Your task to perform on an android device: Open CNN.com Image 0: 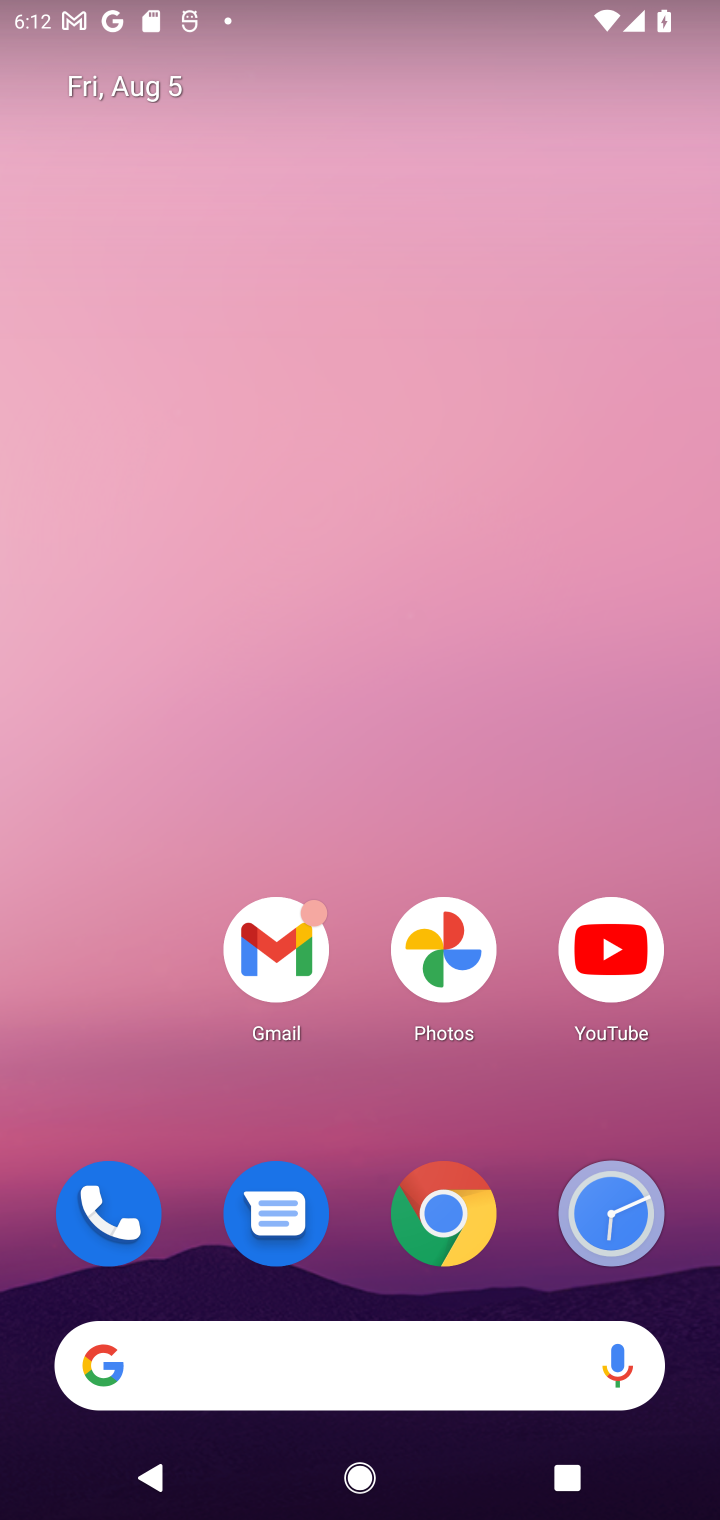
Step 0: click (420, 1228)
Your task to perform on an android device: Open CNN.com Image 1: 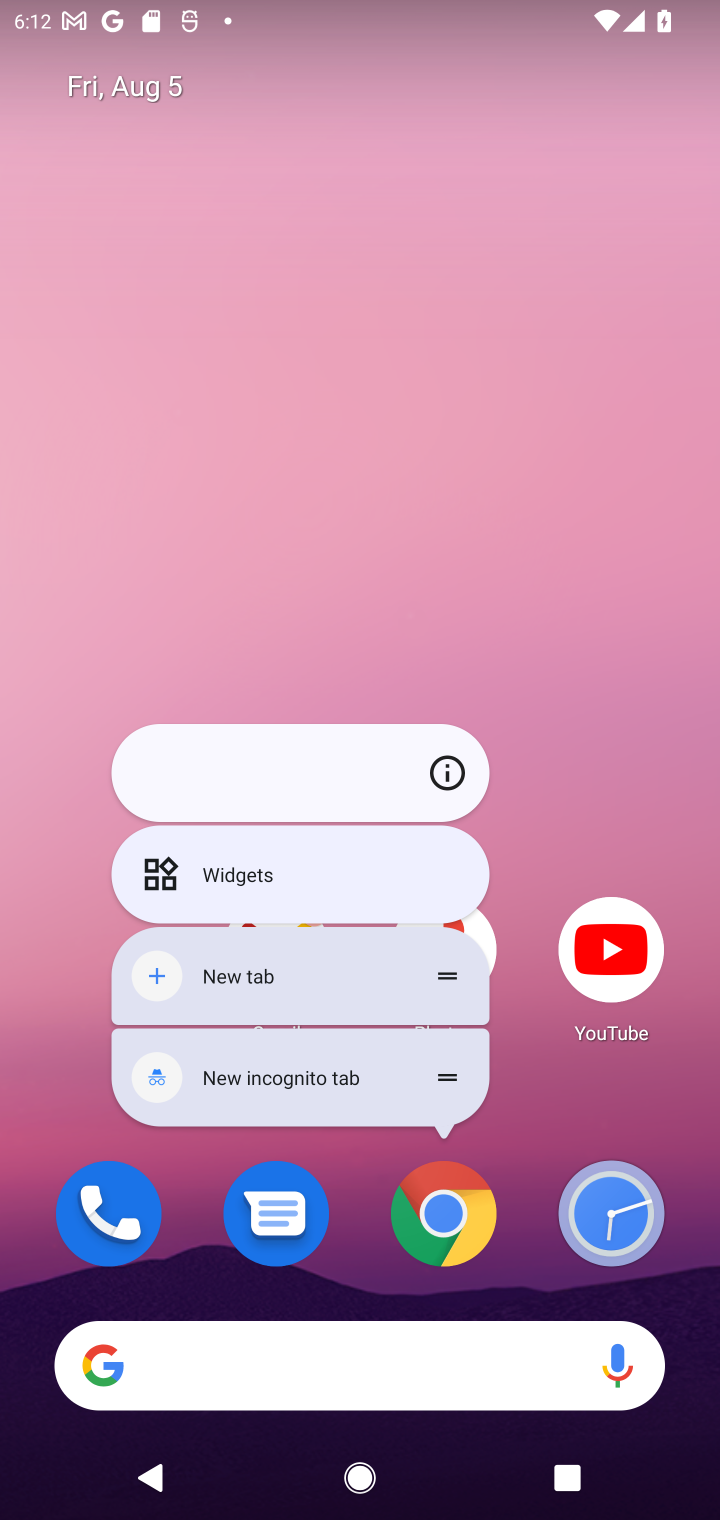
Step 1: click (457, 1265)
Your task to perform on an android device: Open CNN.com Image 2: 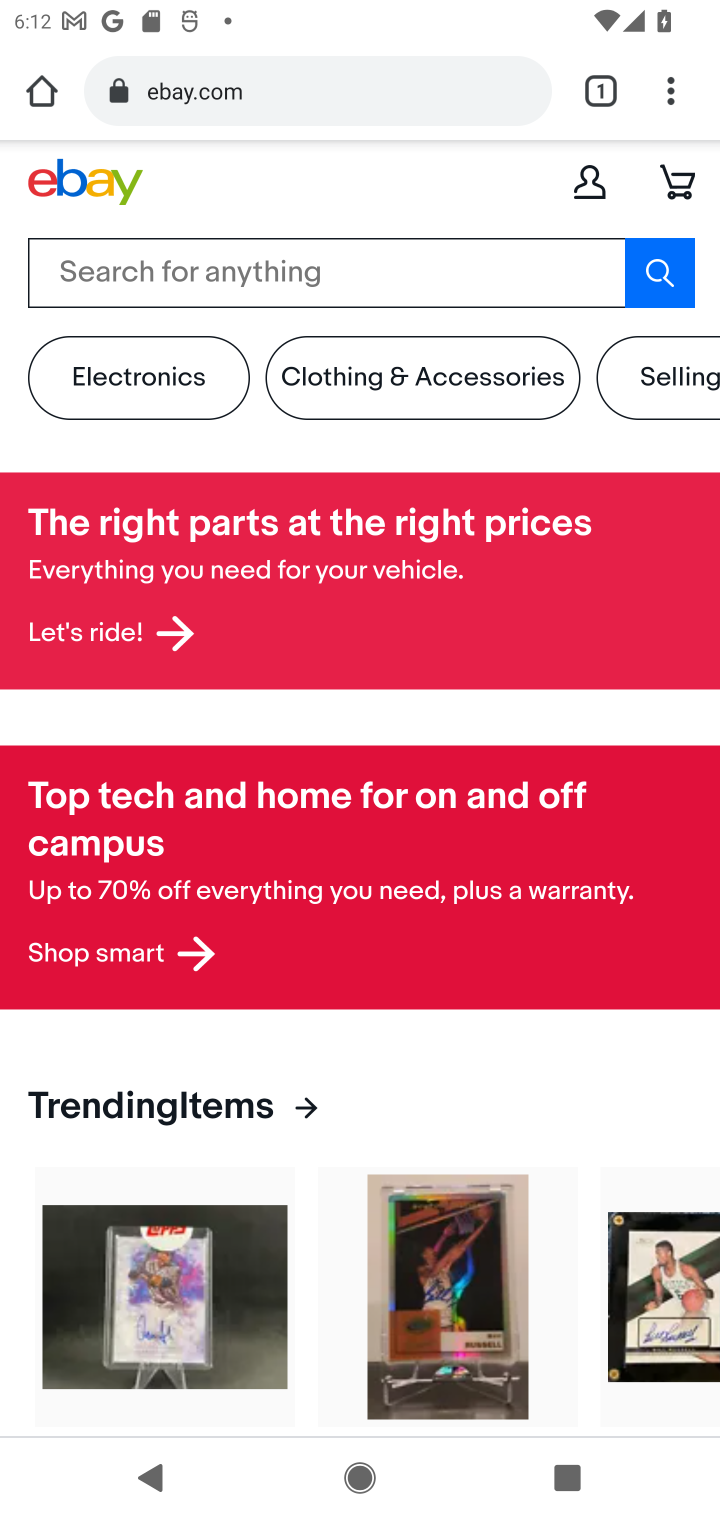
Step 2: click (398, 93)
Your task to perform on an android device: Open CNN.com Image 3: 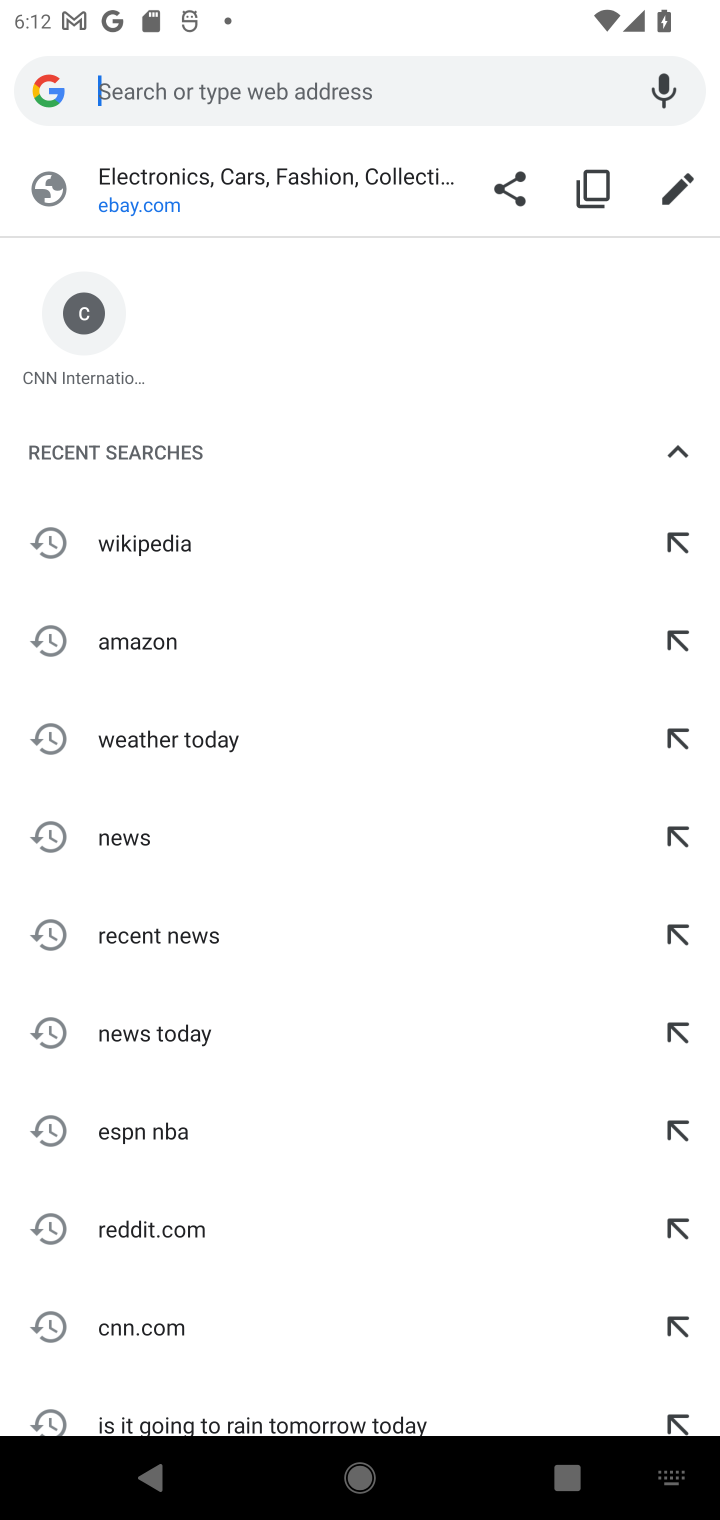
Step 3: type "cnn"
Your task to perform on an android device: Open CNN.com Image 4: 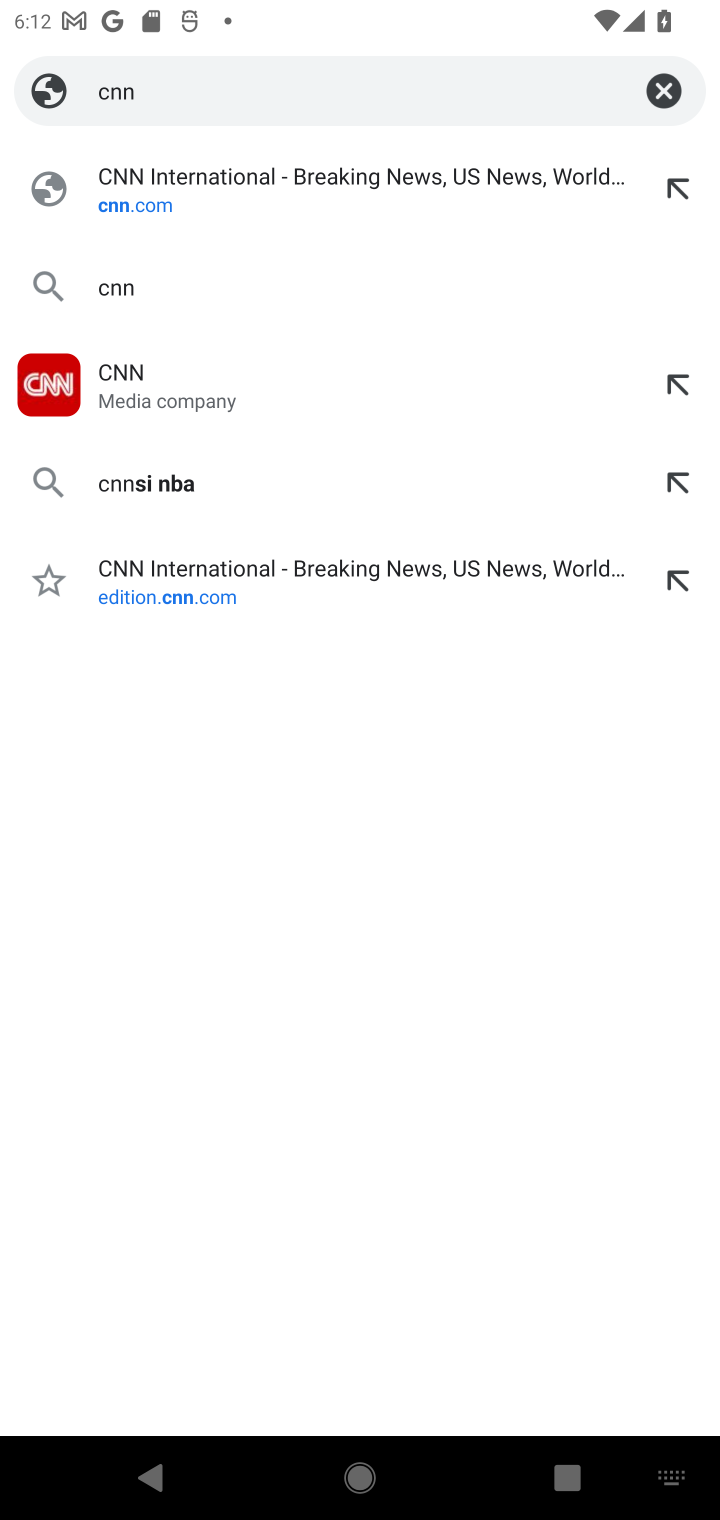
Step 4: click (197, 244)
Your task to perform on an android device: Open CNN.com Image 5: 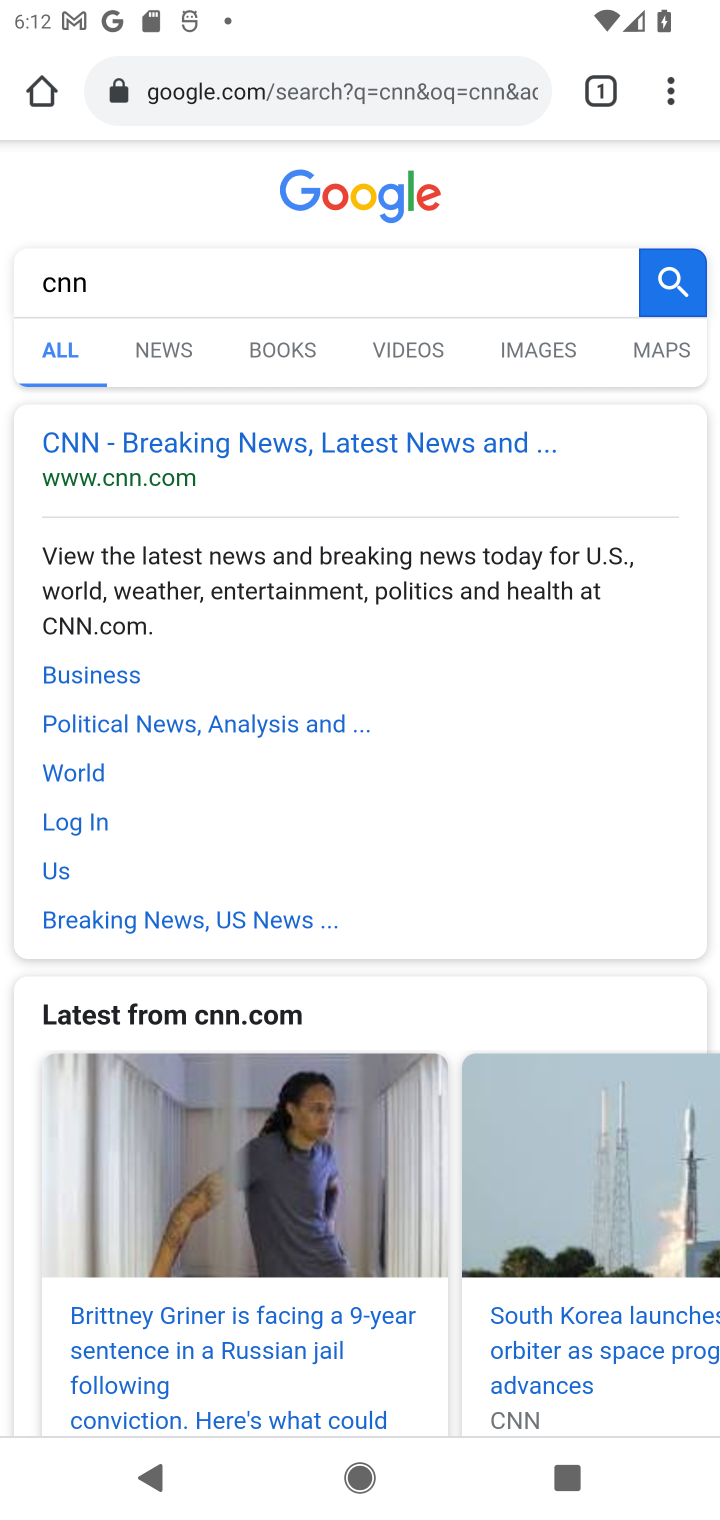
Step 5: click (261, 442)
Your task to perform on an android device: Open CNN.com Image 6: 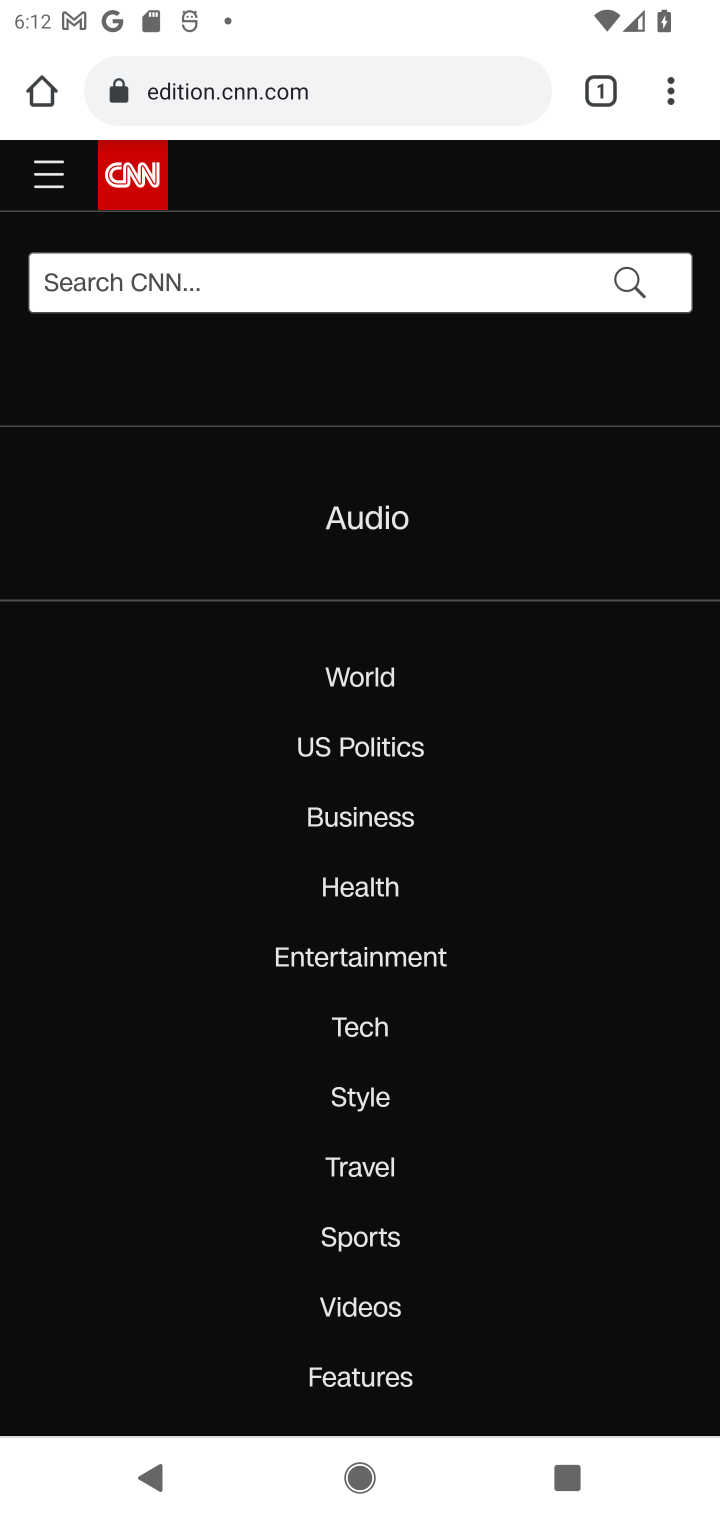
Step 6: task complete